Your task to perform on an android device: Go to CNN.com Image 0: 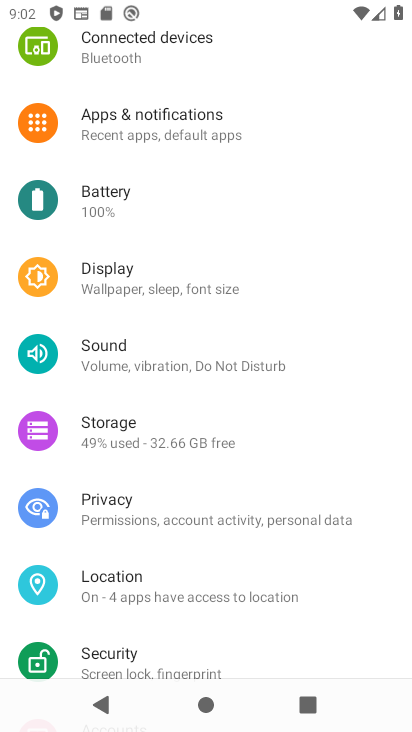
Step 0: press home button
Your task to perform on an android device: Go to CNN.com Image 1: 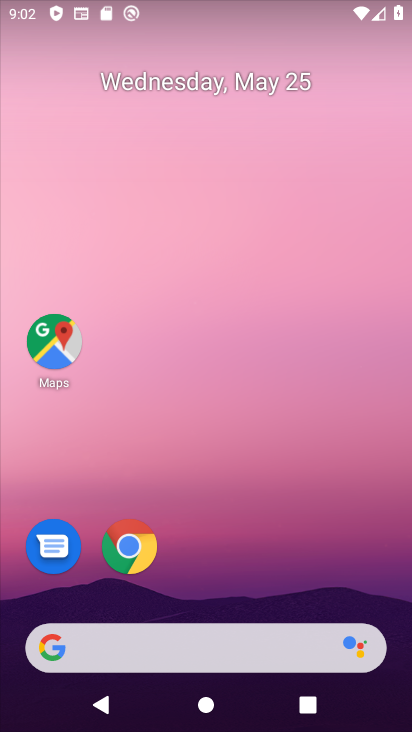
Step 1: click (124, 537)
Your task to perform on an android device: Go to CNN.com Image 2: 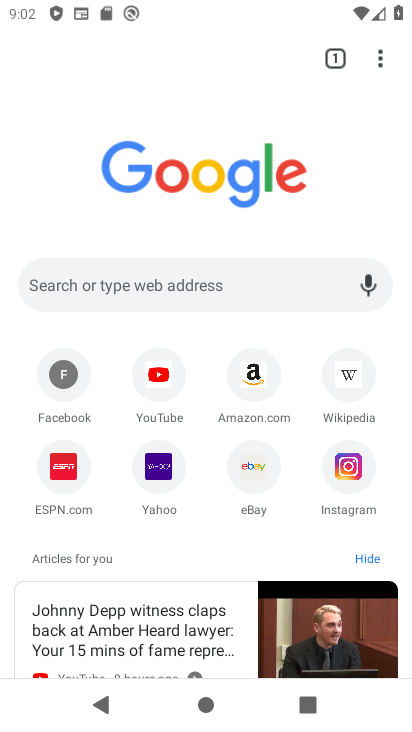
Step 2: click (105, 285)
Your task to perform on an android device: Go to CNN.com Image 3: 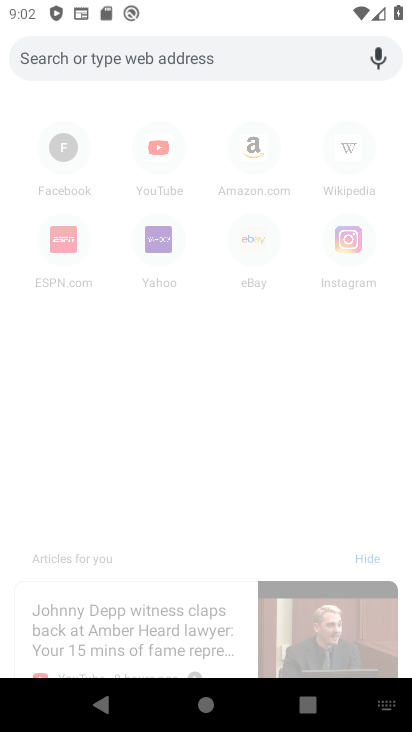
Step 3: type "CNN.com"
Your task to perform on an android device: Go to CNN.com Image 4: 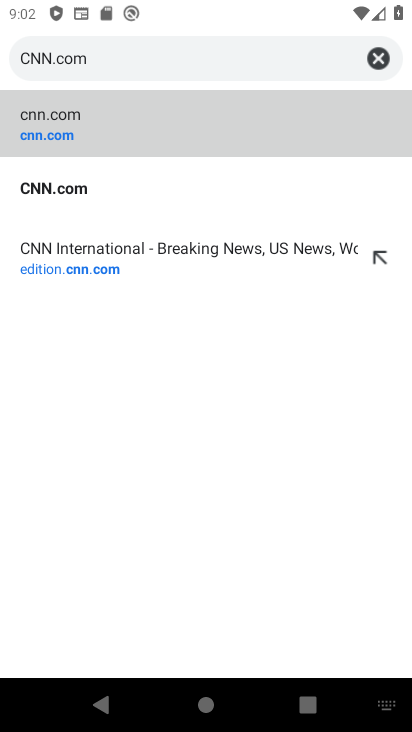
Step 4: click (119, 114)
Your task to perform on an android device: Go to CNN.com Image 5: 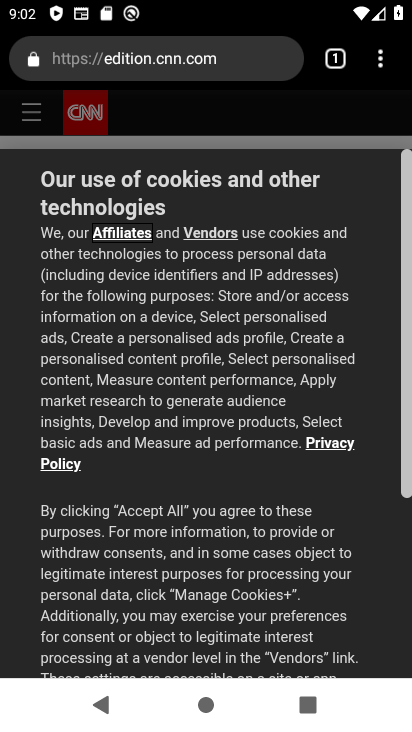
Step 5: task complete